Your task to perform on an android device: toggle location history Image 0: 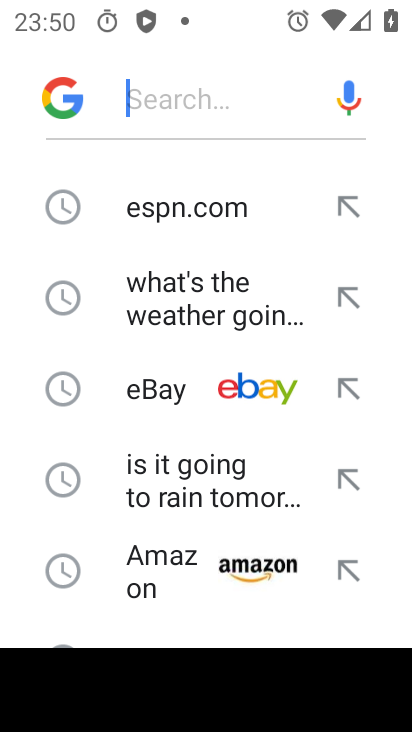
Step 0: press back button
Your task to perform on an android device: toggle location history Image 1: 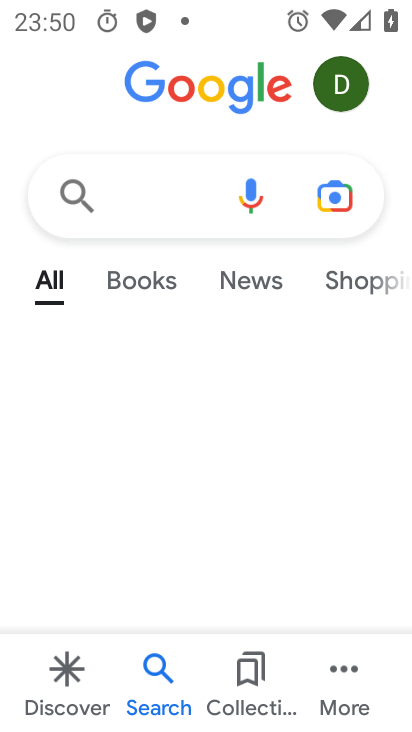
Step 1: press home button
Your task to perform on an android device: toggle location history Image 2: 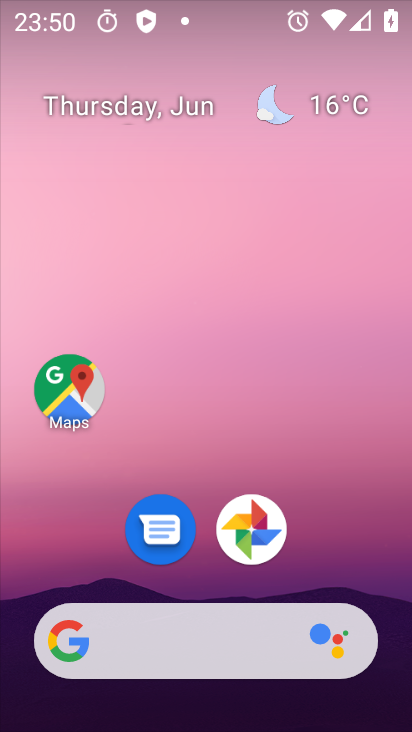
Step 2: drag from (264, 678) to (271, 31)
Your task to perform on an android device: toggle location history Image 3: 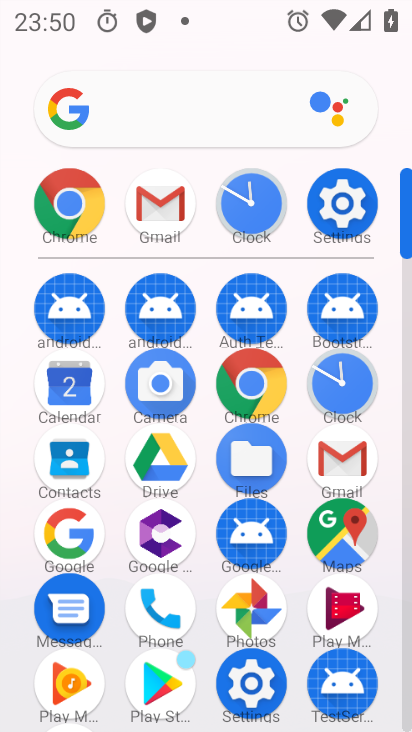
Step 3: click (329, 205)
Your task to perform on an android device: toggle location history Image 4: 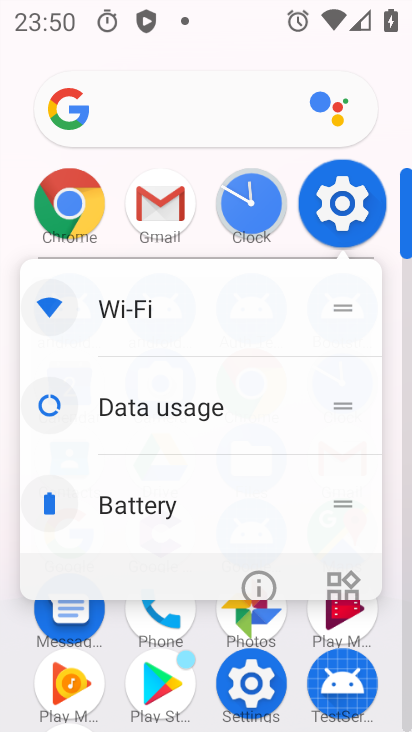
Step 4: click (330, 204)
Your task to perform on an android device: toggle location history Image 5: 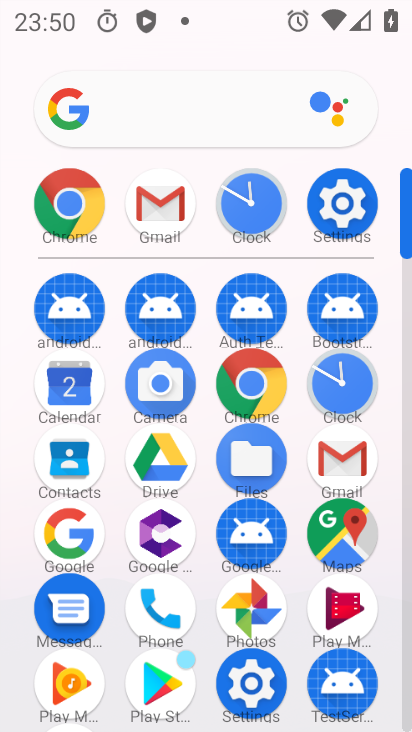
Step 5: click (330, 204)
Your task to perform on an android device: toggle location history Image 6: 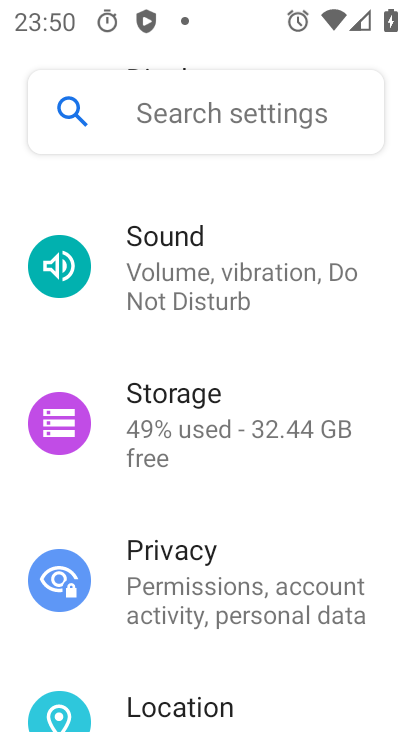
Step 6: drag from (218, 486) to (188, 218)
Your task to perform on an android device: toggle location history Image 7: 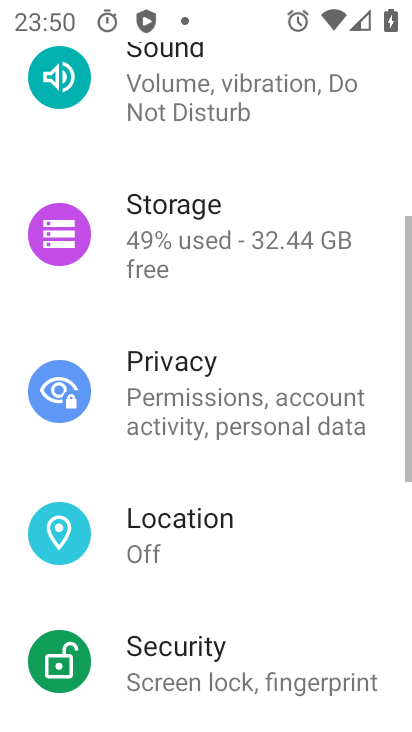
Step 7: drag from (240, 477) to (250, 166)
Your task to perform on an android device: toggle location history Image 8: 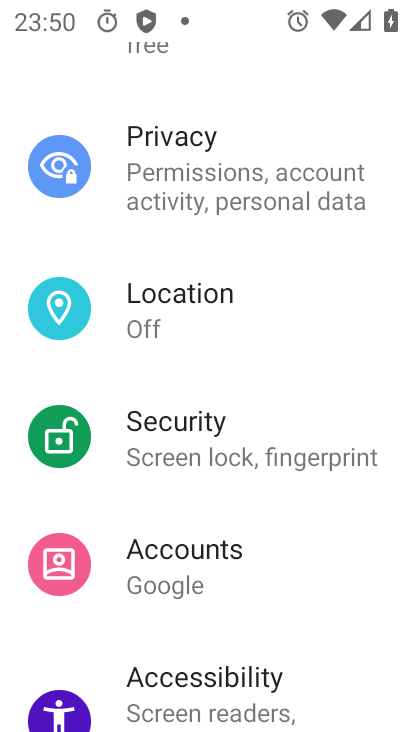
Step 8: click (164, 386)
Your task to perform on an android device: toggle location history Image 9: 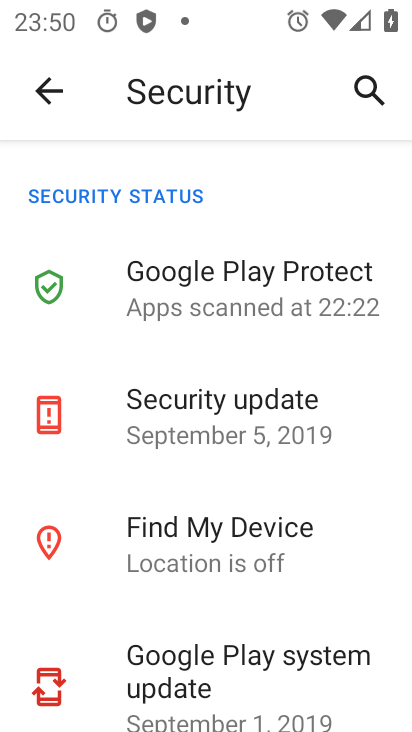
Step 9: click (49, 73)
Your task to perform on an android device: toggle location history Image 10: 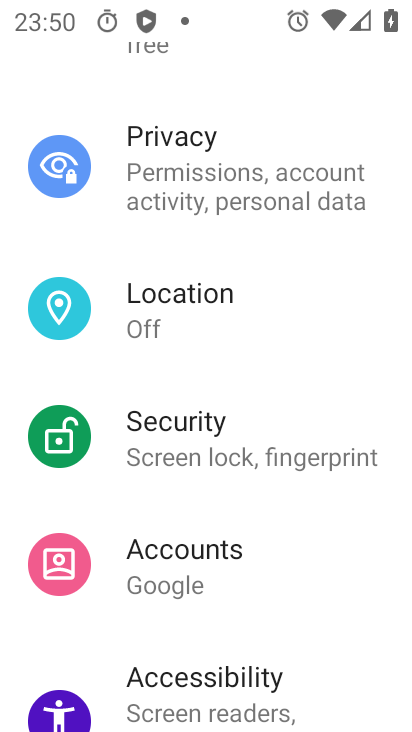
Step 10: click (156, 304)
Your task to perform on an android device: toggle location history Image 11: 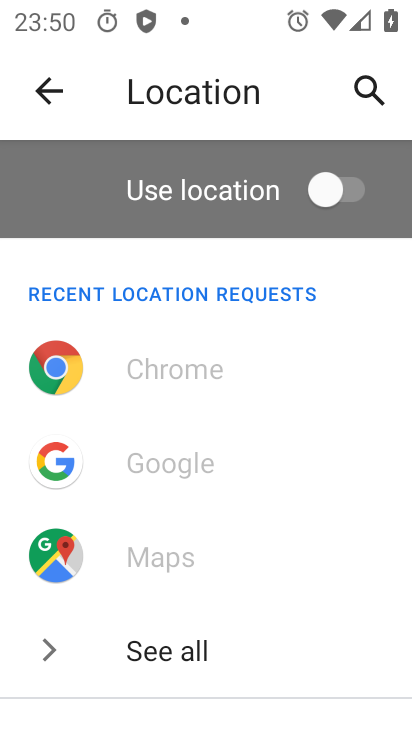
Step 11: drag from (248, 585) to (225, 221)
Your task to perform on an android device: toggle location history Image 12: 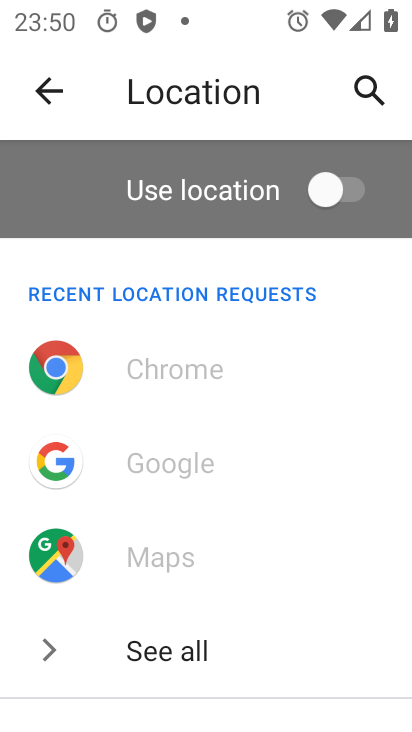
Step 12: drag from (246, 489) to (294, 150)
Your task to perform on an android device: toggle location history Image 13: 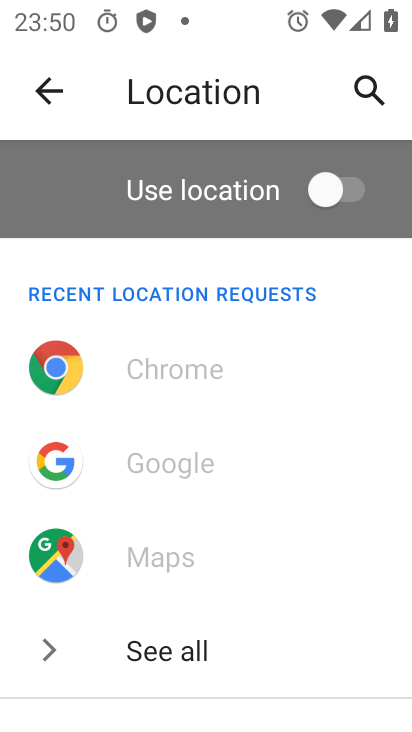
Step 13: click (243, 159)
Your task to perform on an android device: toggle location history Image 14: 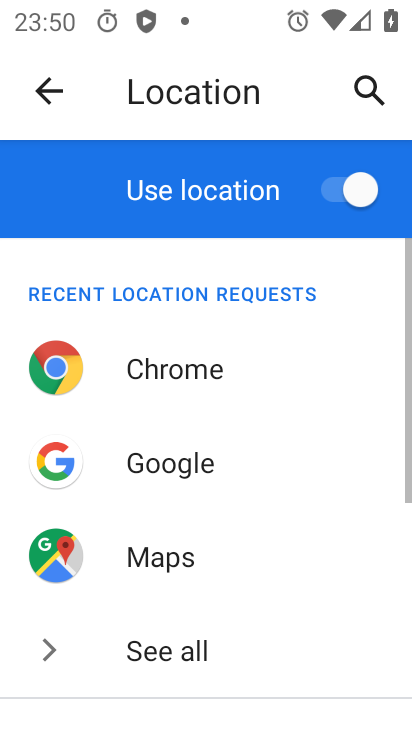
Step 14: drag from (239, 495) to (279, 222)
Your task to perform on an android device: toggle location history Image 15: 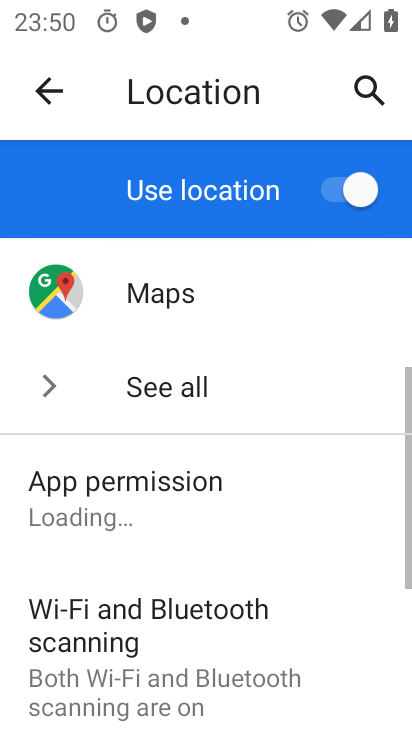
Step 15: drag from (239, 520) to (206, 263)
Your task to perform on an android device: toggle location history Image 16: 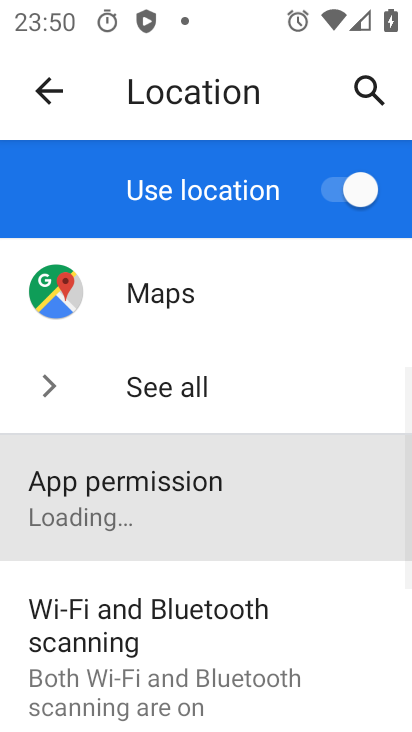
Step 16: drag from (161, 532) to (112, 238)
Your task to perform on an android device: toggle location history Image 17: 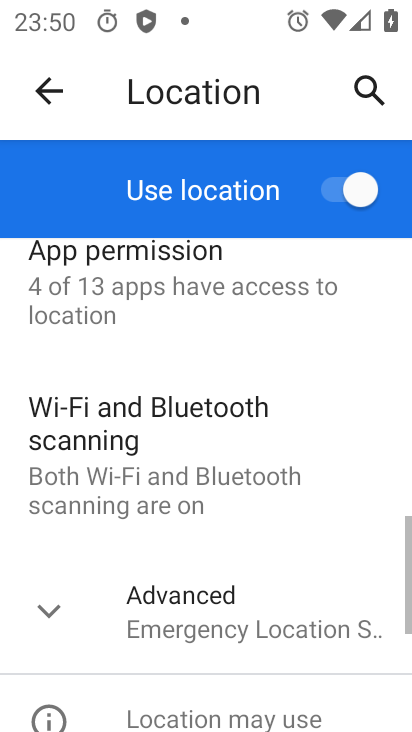
Step 17: drag from (137, 535) to (174, 158)
Your task to perform on an android device: toggle location history Image 18: 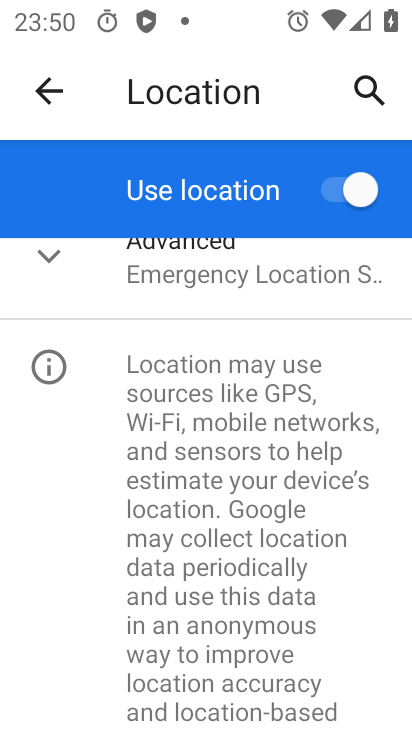
Step 18: drag from (214, 516) to (202, 290)
Your task to perform on an android device: toggle location history Image 19: 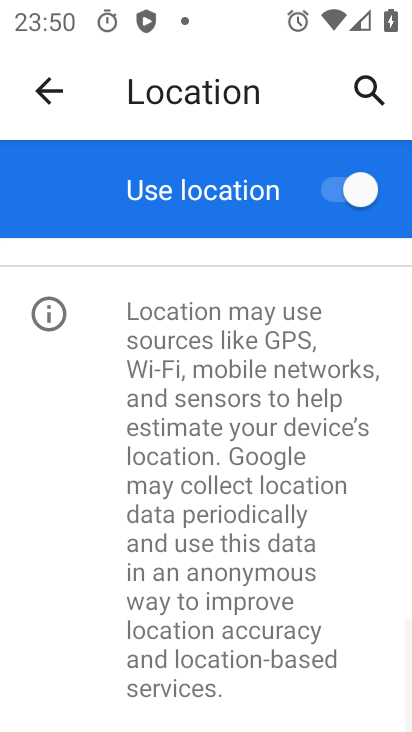
Step 19: drag from (211, 319) to (208, 445)
Your task to perform on an android device: toggle location history Image 20: 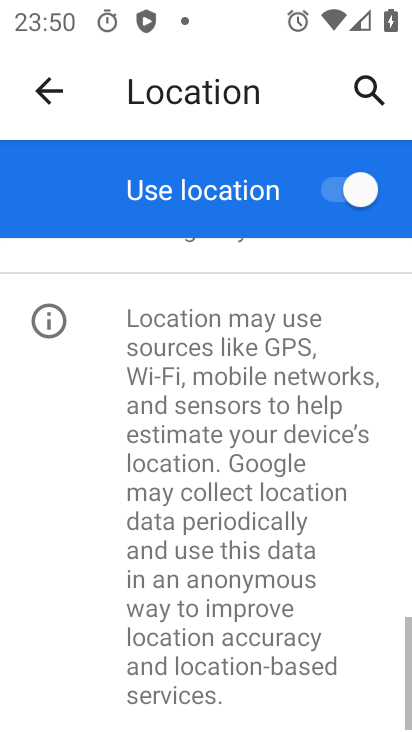
Step 20: drag from (196, 365) to (253, 557)
Your task to perform on an android device: toggle location history Image 21: 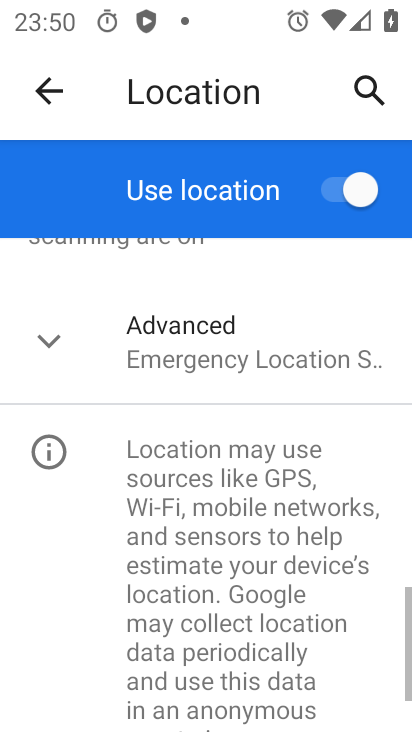
Step 21: drag from (245, 366) to (282, 586)
Your task to perform on an android device: toggle location history Image 22: 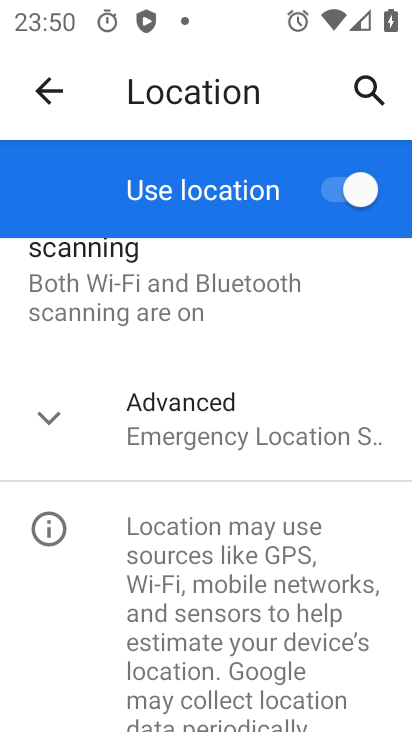
Step 22: drag from (255, 320) to (278, 559)
Your task to perform on an android device: toggle location history Image 23: 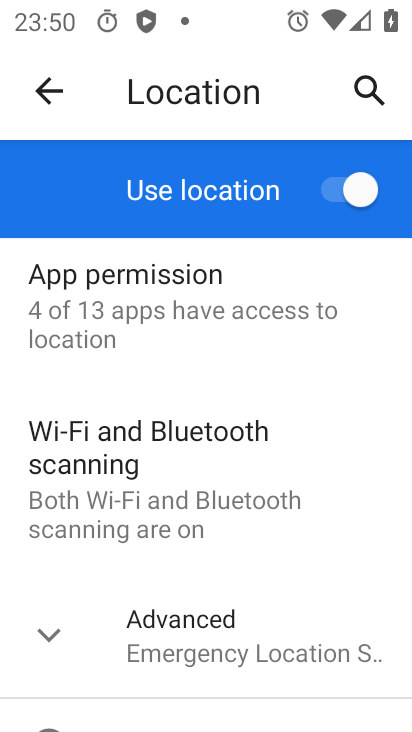
Step 23: click (219, 645)
Your task to perform on an android device: toggle location history Image 24: 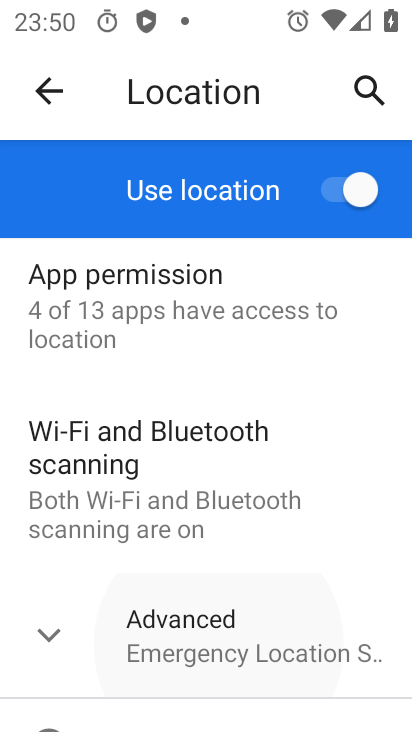
Step 24: click (219, 645)
Your task to perform on an android device: toggle location history Image 25: 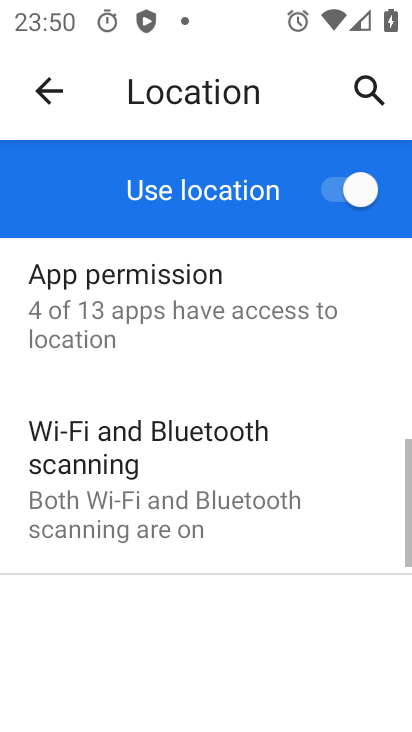
Step 25: click (219, 645)
Your task to perform on an android device: toggle location history Image 26: 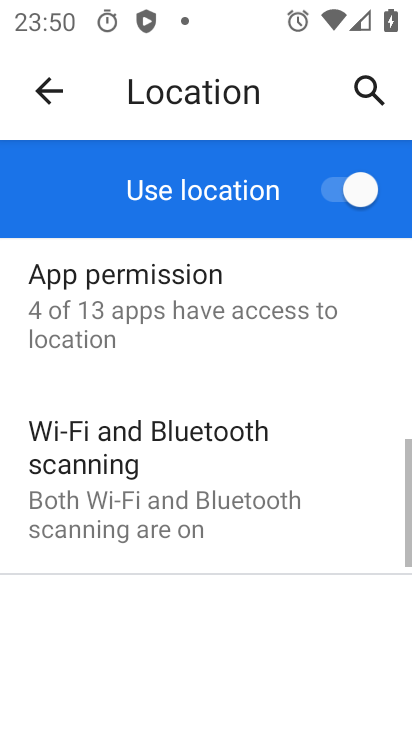
Step 26: click (219, 645)
Your task to perform on an android device: toggle location history Image 27: 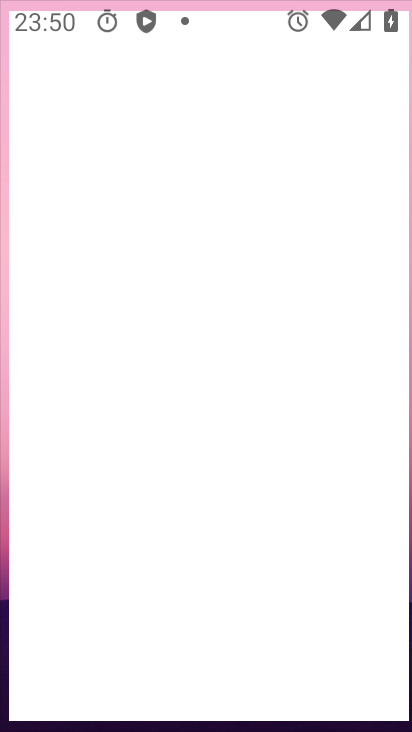
Step 27: click (221, 642)
Your task to perform on an android device: toggle location history Image 28: 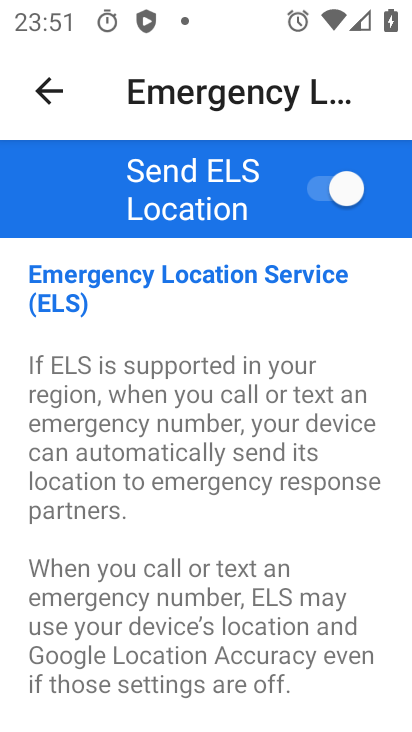
Step 28: drag from (247, 400) to (212, 66)
Your task to perform on an android device: toggle location history Image 29: 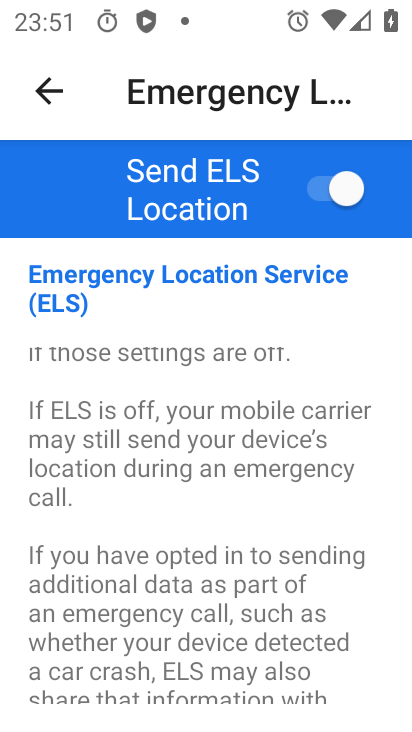
Step 29: drag from (211, 367) to (167, 70)
Your task to perform on an android device: toggle location history Image 30: 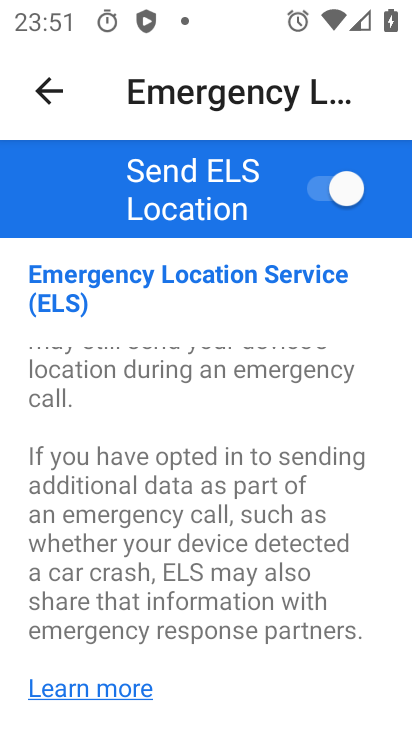
Step 30: drag from (166, 508) to (127, 203)
Your task to perform on an android device: toggle location history Image 31: 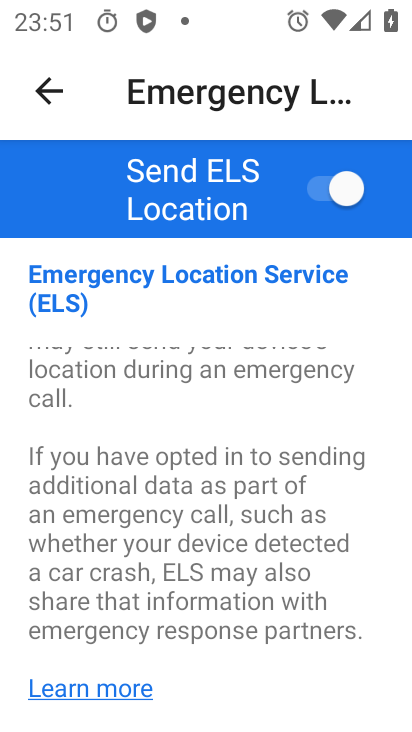
Step 31: click (41, 82)
Your task to perform on an android device: toggle location history Image 32: 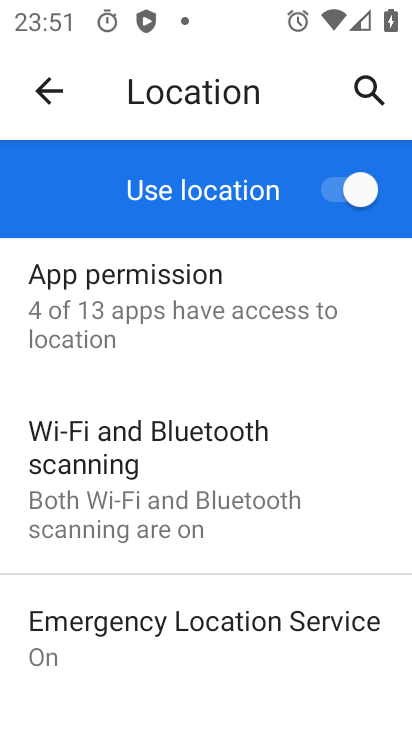
Step 32: drag from (171, 622) to (109, 233)
Your task to perform on an android device: toggle location history Image 33: 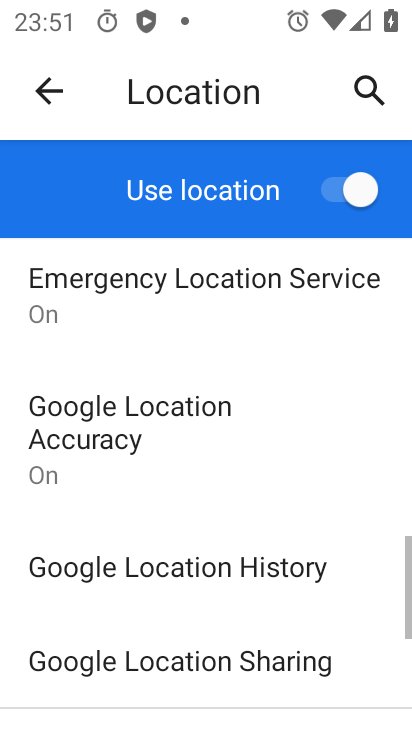
Step 33: drag from (148, 462) to (127, 281)
Your task to perform on an android device: toggle location history Image 34: 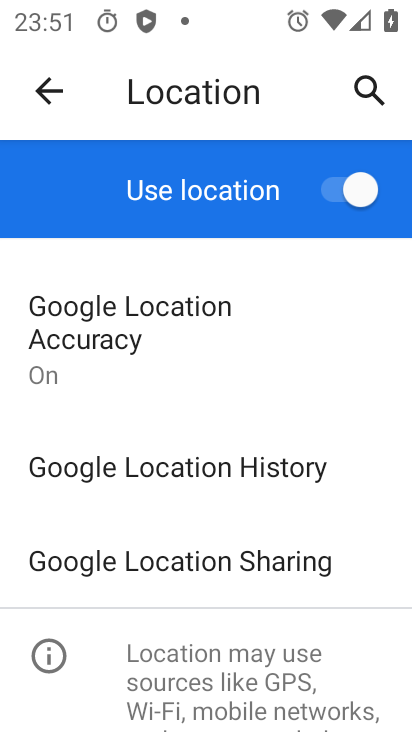
Step 34: click (175, 467)
Your task to perform on an android device: toggle location history Image 35: 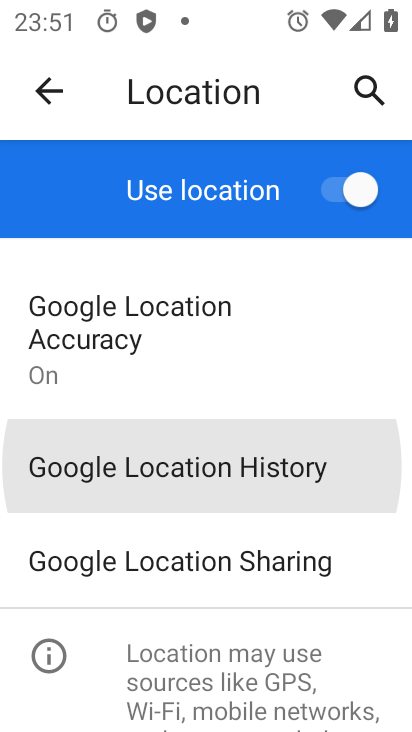
Step 35: click (175, 467)
Your task to perform on an android device: toggle location history Image 36: 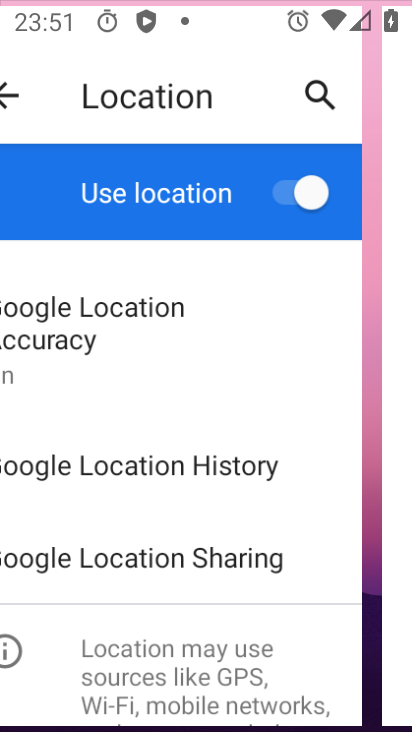
Step 36: click (179, 470)
Your task to perform on an android device: toggle location history Image 37: 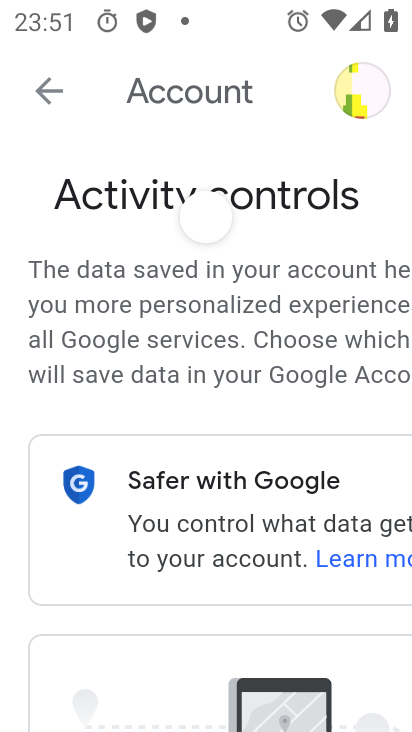
Step 37: drag from (255, 533) to (249, 212)
Your task to perform on an android device: toggle location history Image 38: 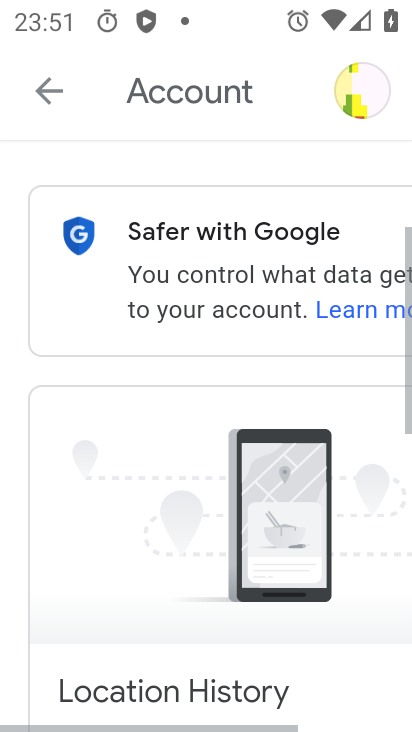
Step 38: drag from (225, 431) to (222, 271)
Your task to perform on an android device: toggle location history Image 39: 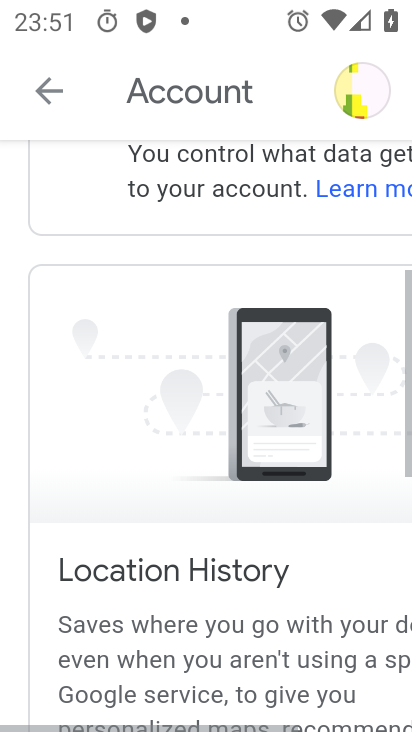
Step 39: drag from (198, 430) to (188, 210)
Your task to perform on an android device: toggle location history Image 40: 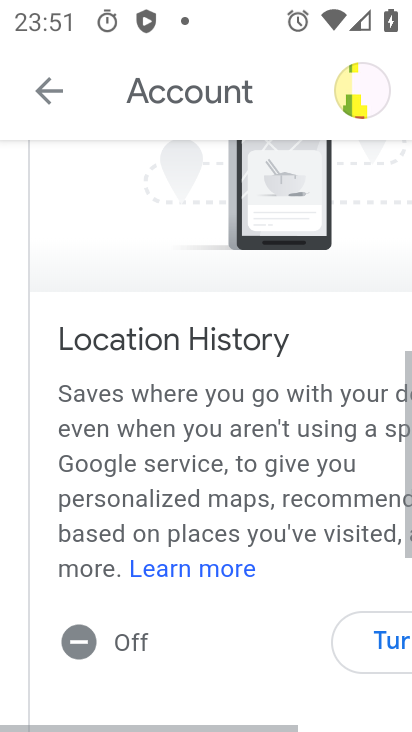
Step 40: drag from (149, 453) to (149, 112)
Your task to perform on an android device: toggle location history Image 41: 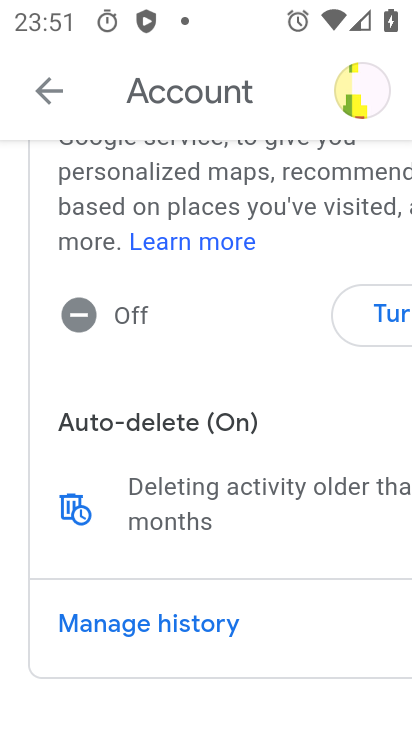
Step 41: click (375, 315)
Your task to perform on an android device: toggle location history Image 42: 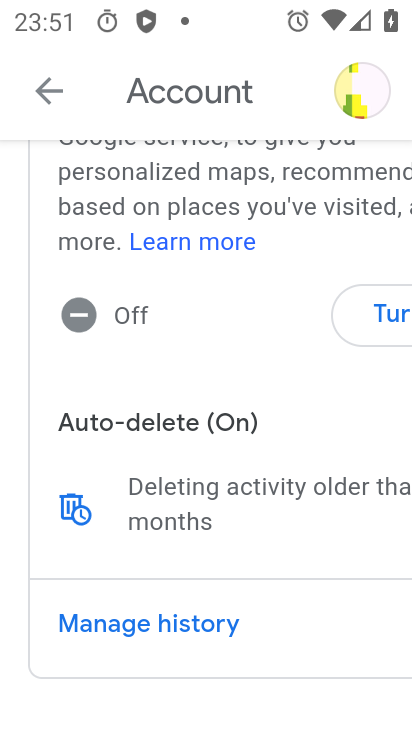
Step 42: click (375, 315)
Your task to perform on an android device: toggle location history Image 43: 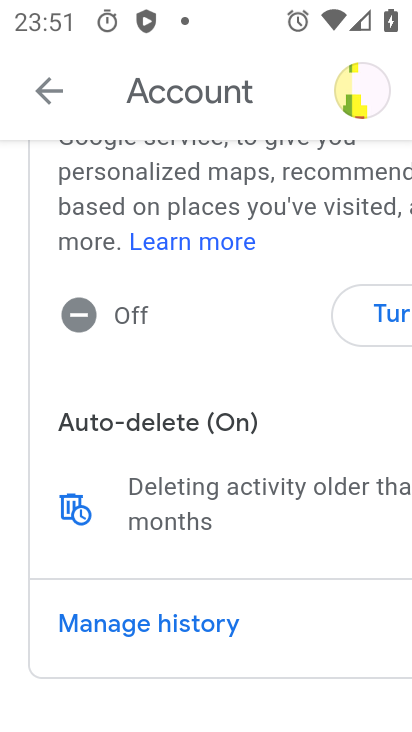
Step 43: click (374, 314)
Your task to perform on an android device: toggle location history Image 44: 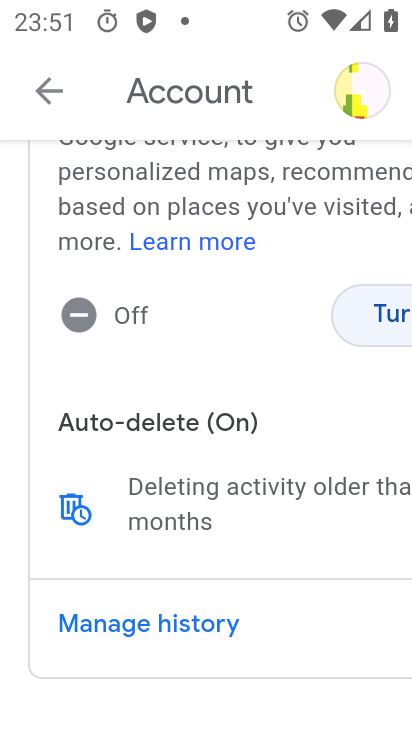
Step 44: click (374, 314)
Your task to perform on an android device: toggle location history Image 45: 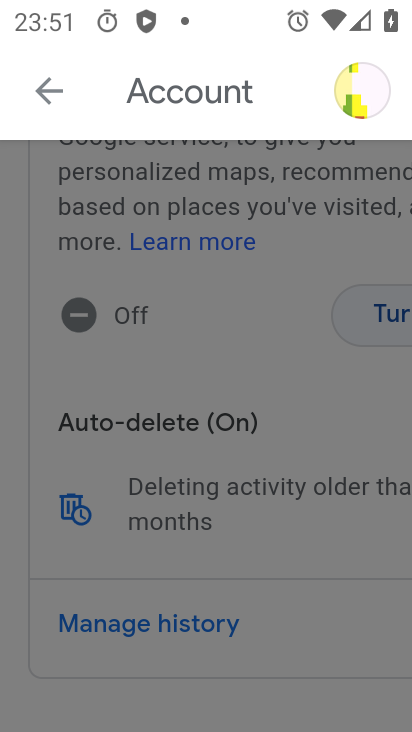
Step 45: click (374, 314)
Your task to perform on an android device: toggle location history Image 46: 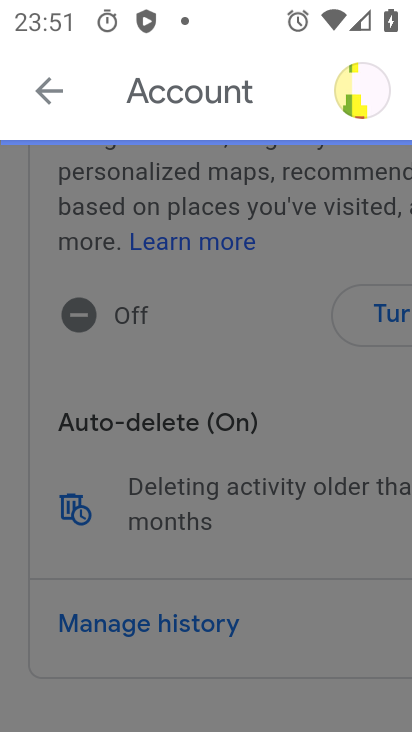
Step 46: click (374, 314)
Your task to perform on an android device: toggle location history Image 47: 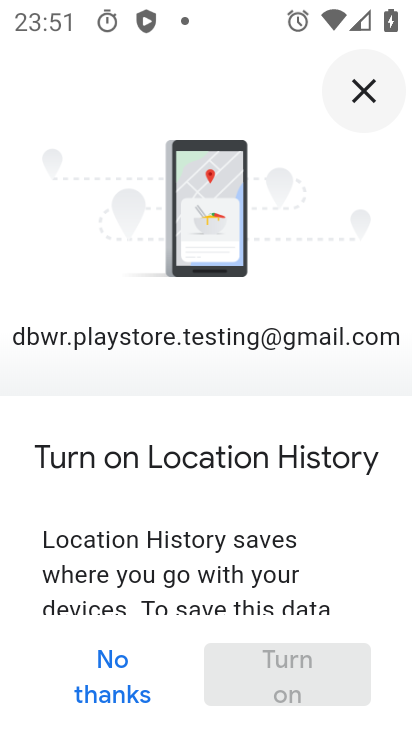
Step 47: click (374, 312)
Your task to perform on an android device: toggle location history Image 48: 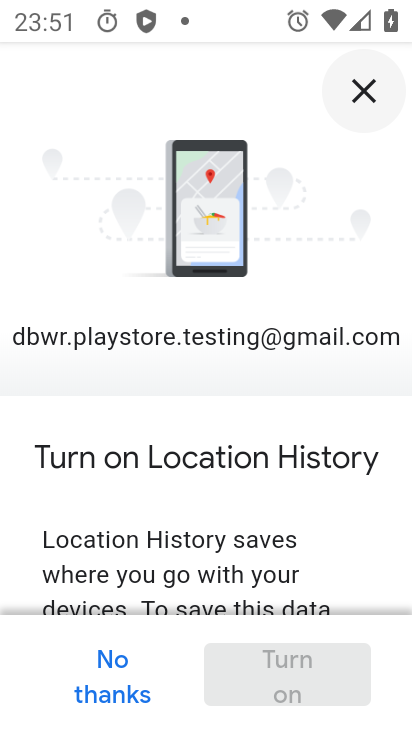
Step 48: click (374, 312)
Your task to perform on an android device: toggle location history Image 49: 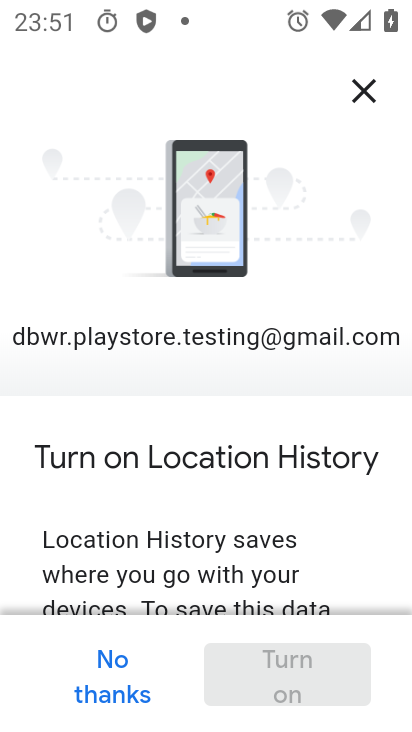
Step 49: task complete